Your task to perform on an android device: change the clock display to show seconds Image 0: 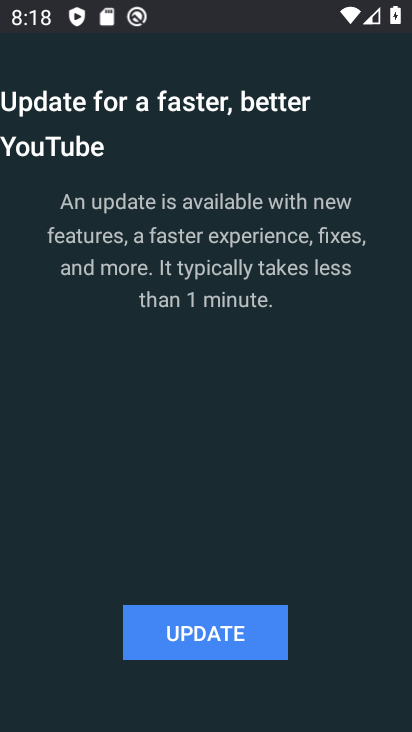
Step 0: press home button
Your task to perform on an android device: change the clock display to show seconds Image 1: 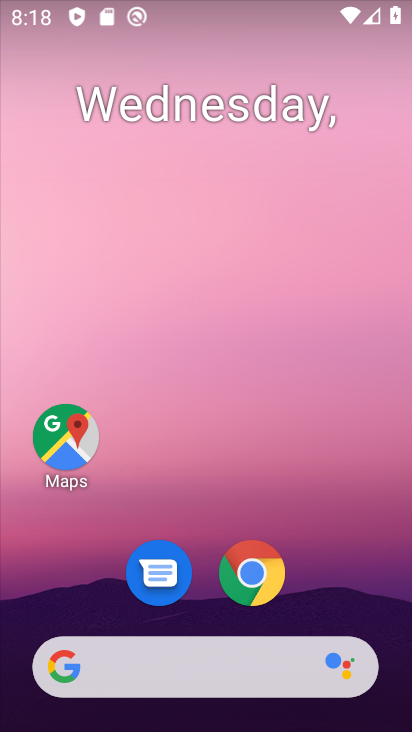
Step 1: drag from (254, 553) to (251, 118)
Your task to perform on an android device: change the clock display to show seconds Image 2: 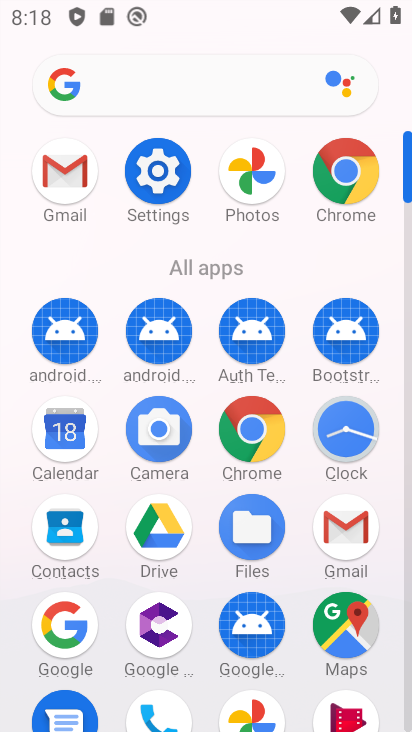
Step 2: click (340, 447)
Your task to perform on an android device: change the clock display to show seconds Image 3: 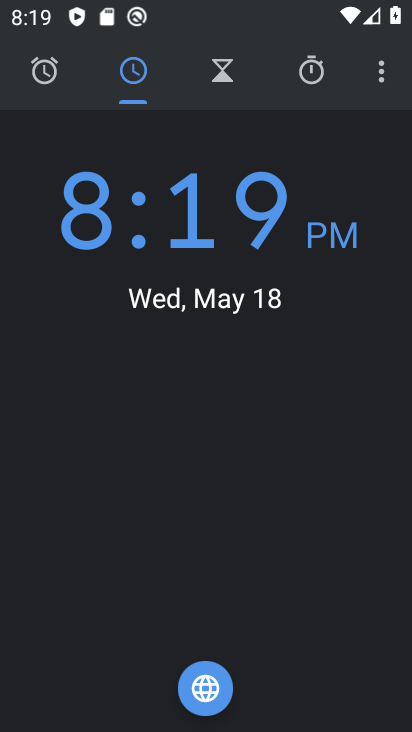
Step 3: click (376, 95)
Your task to perform on an android device: change the clock display to show seconds Image 4: 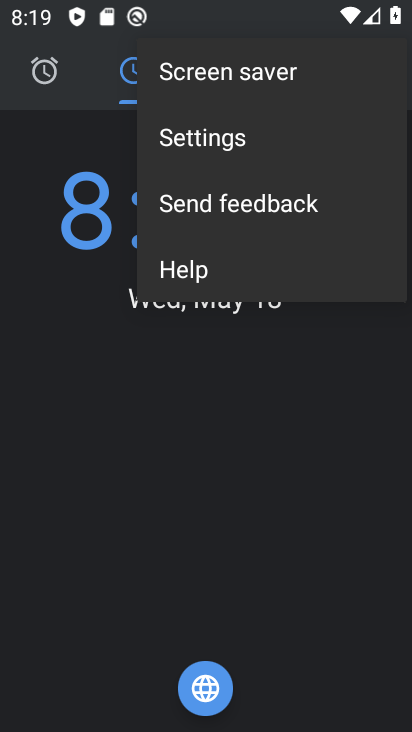
Step 4: click (234, 131)
Your task to perform on an android device: change the clock display to show seconds Image 5: 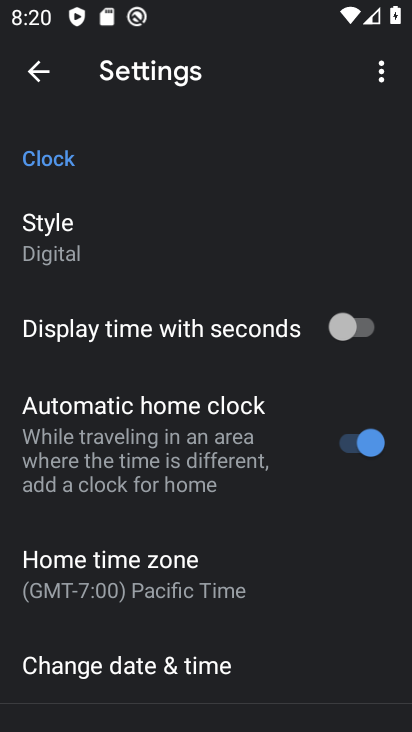
Step 5: click (226, 345)
Your task to perform on an android device: change the clock display to show seconds Image 6: 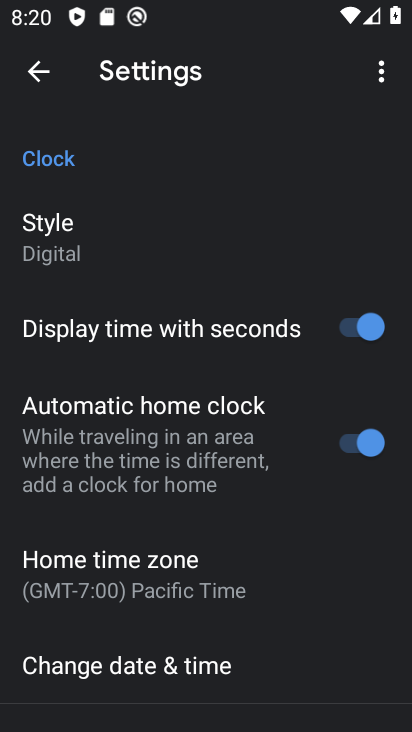
Step 6: task complete